Your task to perform on an android device: turn on bluetooth scan Image 0: 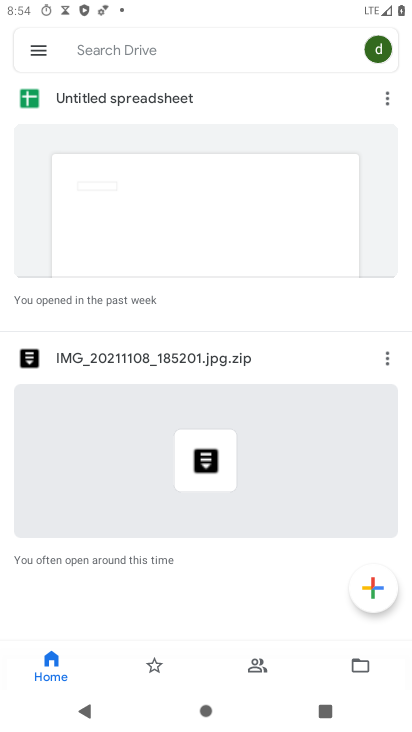
Step 0: press back button
Your task to perform on an android device: turn on bluetooth scan Image 1: 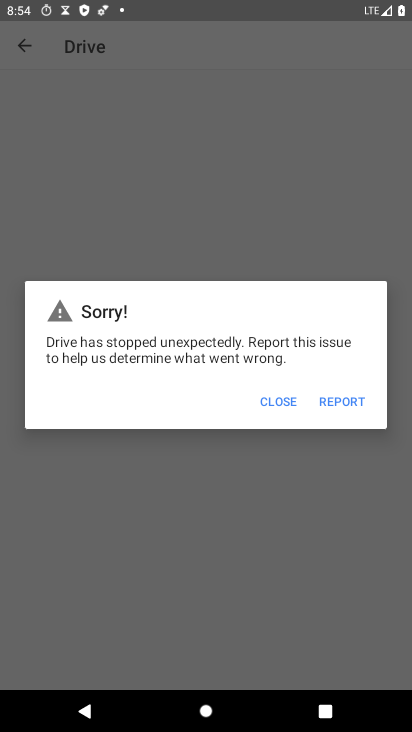
Step 1: press home button
Your task to perform on an android device: turn on bluetooth scan Image 2: 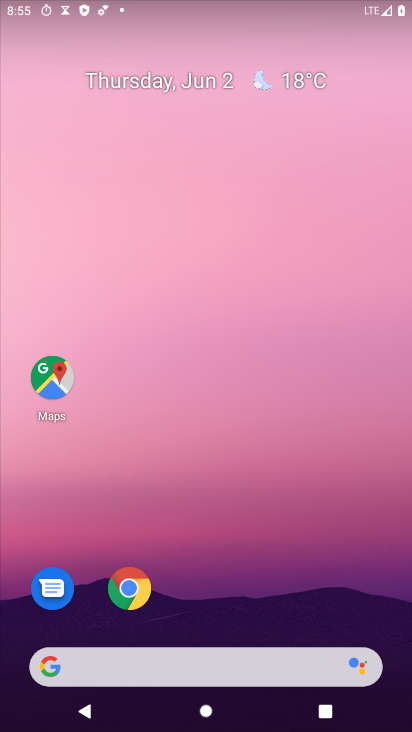
Step 2: drag from (236, 605) to (306, 72)
Your task to perform on an android device: turn on bluetooth scan Image 3: 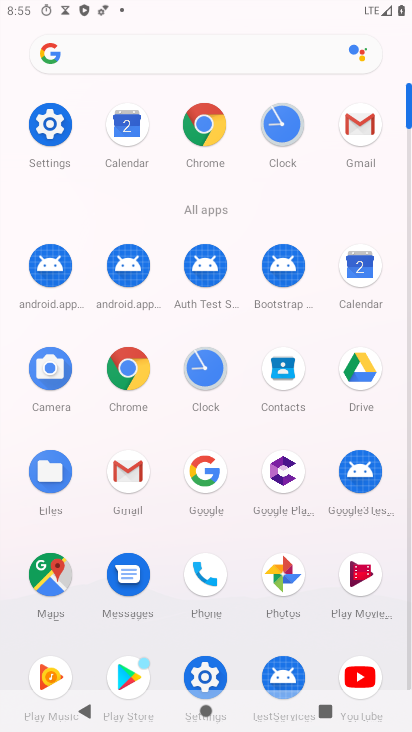
Step 3: click (54, 127)
Your task to perform on an android device: turn on bluetooth scan Image 4: 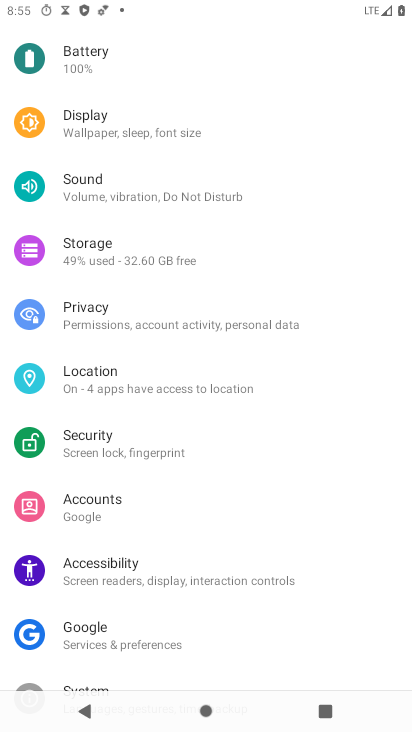
Step 4: drag from (207, 140) to (196, 724)
Your task to perform on an android device: turn on bluetooth scan Image 5: 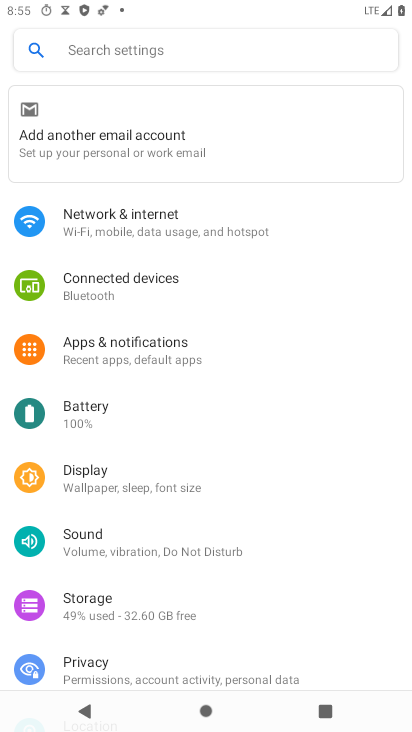
Step 5: click (111, 300)
Your task to perform on an android device: turn on bluetooth scan Image 6: 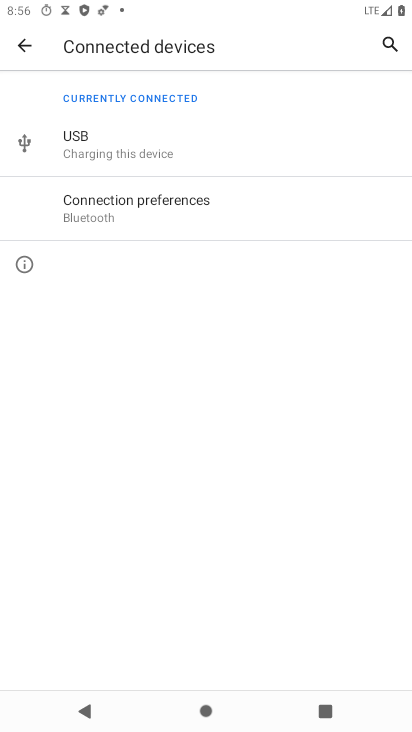
Step 6: click (159, 225)
Your task to perform on an android device: turn on bluetooth scan Image 7: 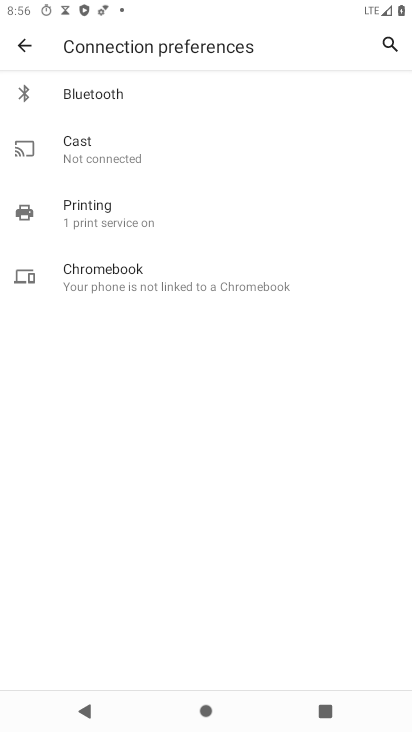
Step 7: click (98, 82)
Your task to perform on an android device: turn on bluetooth scan Image 8: 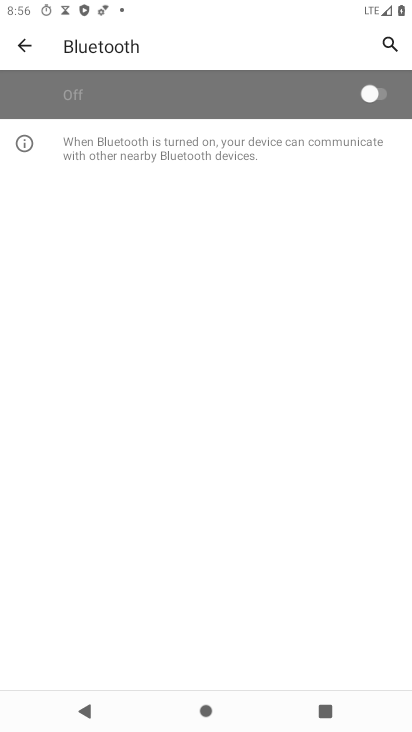
Step 8: click (374, 84)
Your task to perform on an android device: turn on bluetooth scan Image 9: 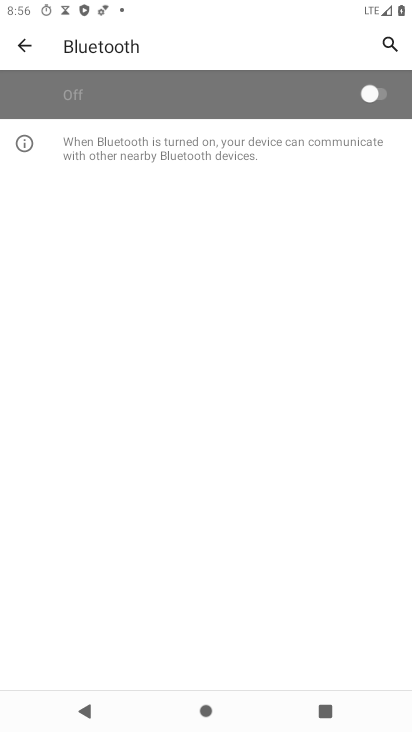
Step 9: task complete